Your task to perform on an android device: change keyboard looks Image 0: 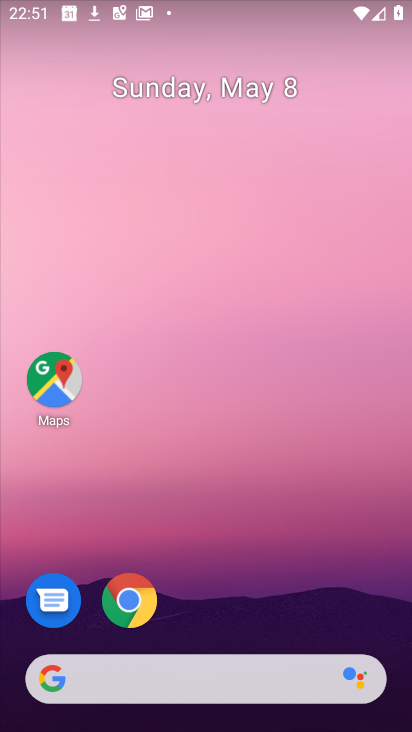
Step 0: drag from (262, 693) to (410, 276)
Your task to perform on an android device: change keyboard looks Image 1: 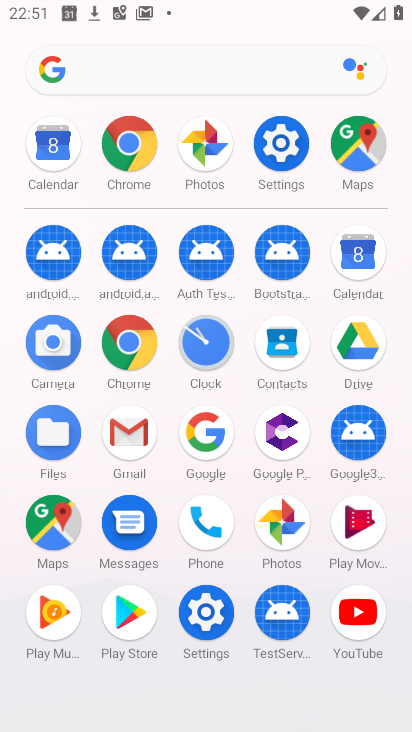
Step 1: click (278, 166)
Your task to perform on an android device: change keyboard looks Image 2: 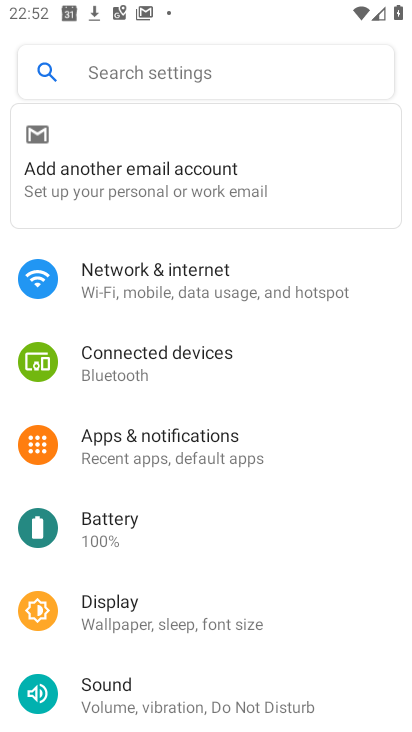
Step 2: click (199, 83)
Your task to perform on an android device: change keyboard looks Image 3: 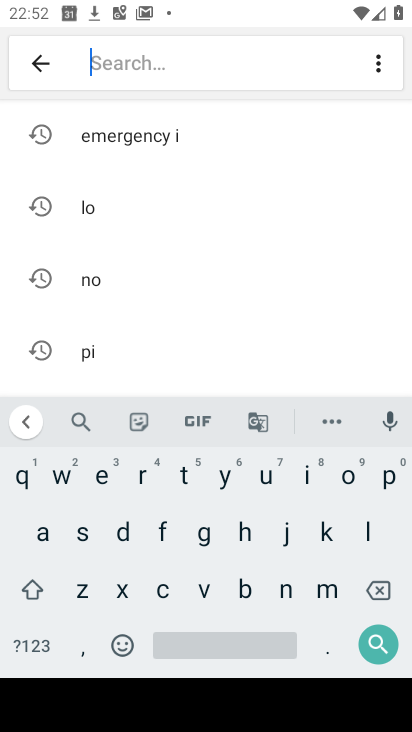
Step 3: click (325, 531)
Your task to perform on an android device: change keyboard looks Image 4: 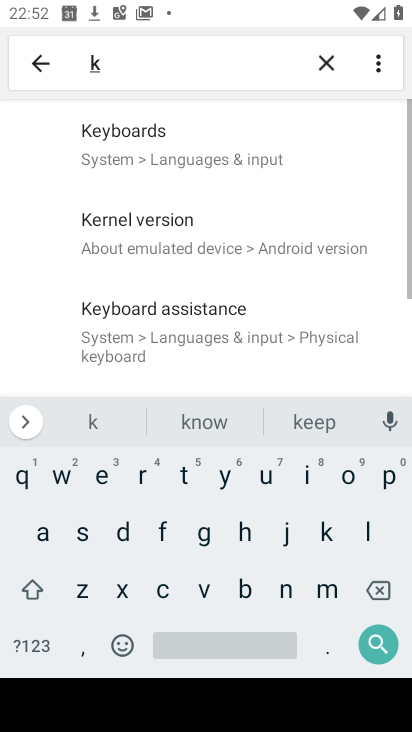
Step 4: click (100, 485)
Your task to perform on an android device: change keyboard looks Image 5: 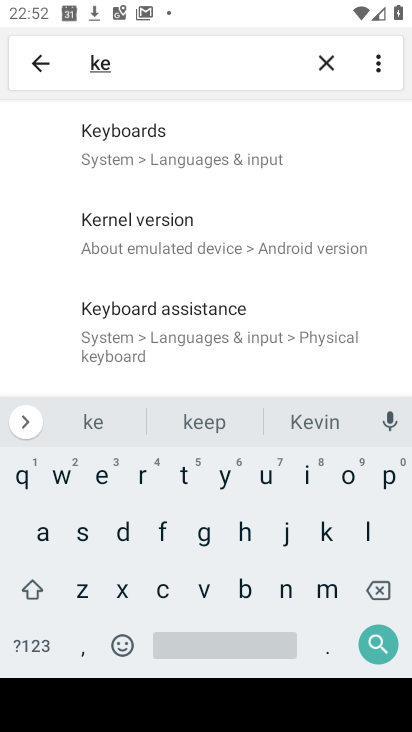
Step 5: click (143, 158)
Your task to perform on an android device: change keyboard looks Image 6: 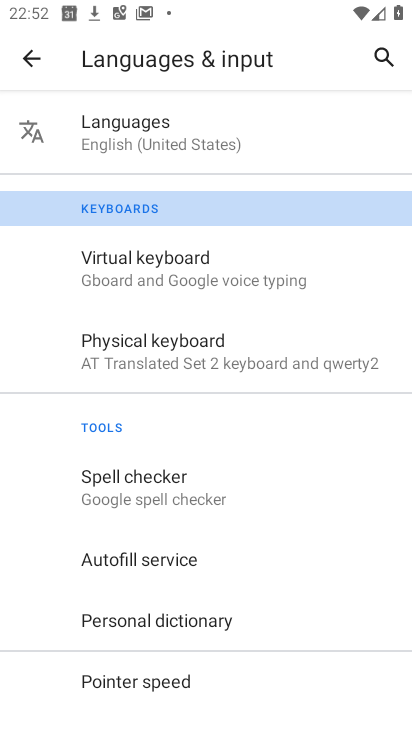
Step 6: click (142, 275)
Your task to perform on an android device: change keyboard looks Image 7: 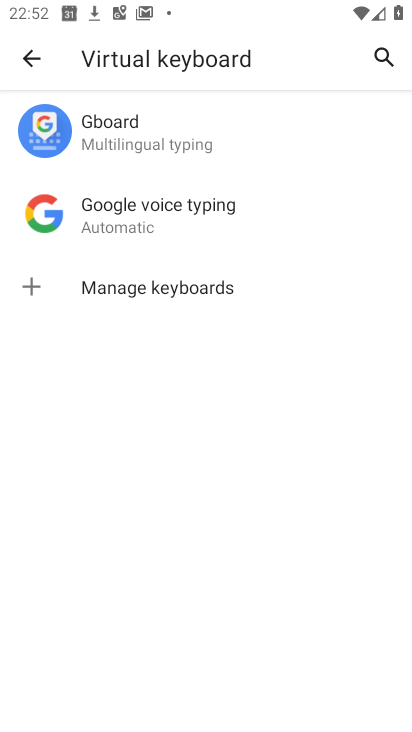
Step 7: click (149, 149)
Your task to perform on an android device: change keyboard looks Image 8: 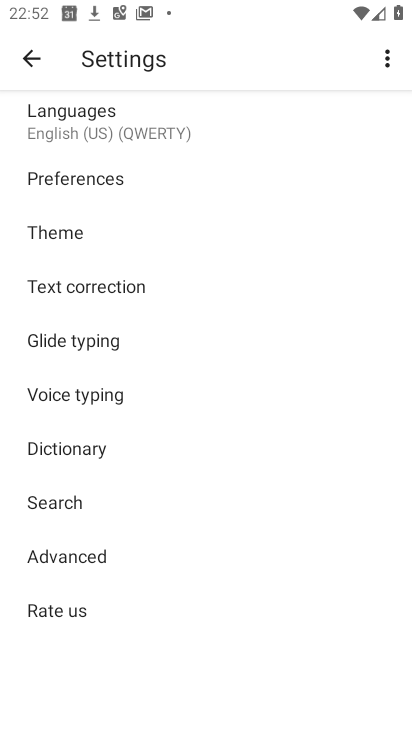
Step 8: click (78, 229)
Your task to perform on an android device: change keyboard looks Image 9: 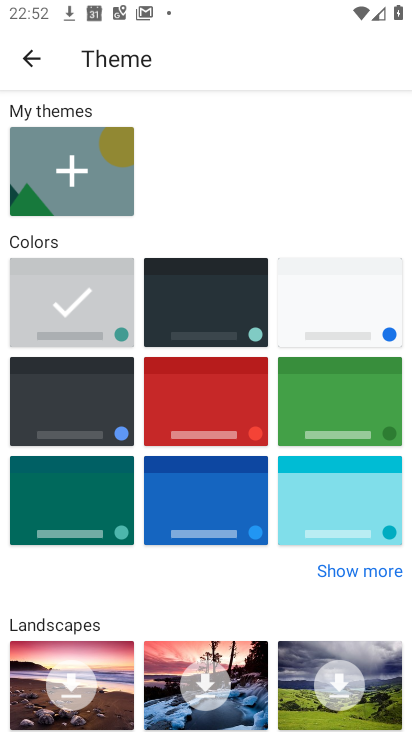
Step 9: click (240, 518)
Your task to perform on an android device: change keyboard looks Image 10: 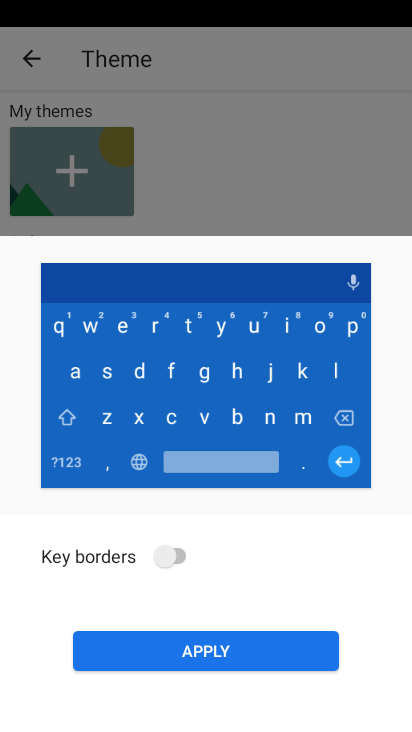
Step 10: click (176, 552)
Your task to perform on an android device: change keyboard looks Image 11: 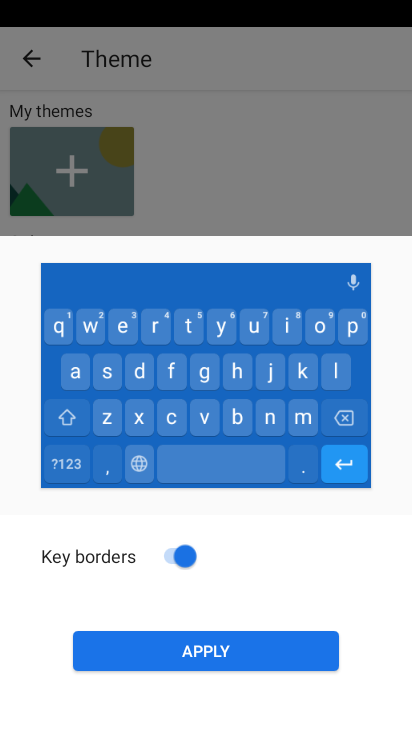
Step 11: click (201, 654)
Your task to perform on an android device: change keyboard looks Image 12: 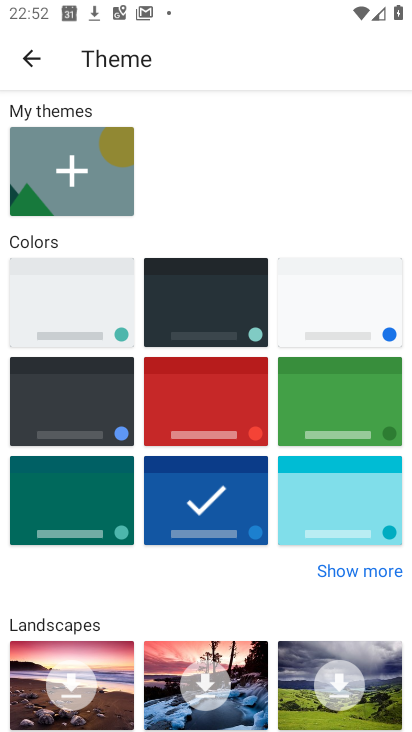
Step 12: task complete